Your task to perform on an android device: turn off javascript in the chrome app Image 0: 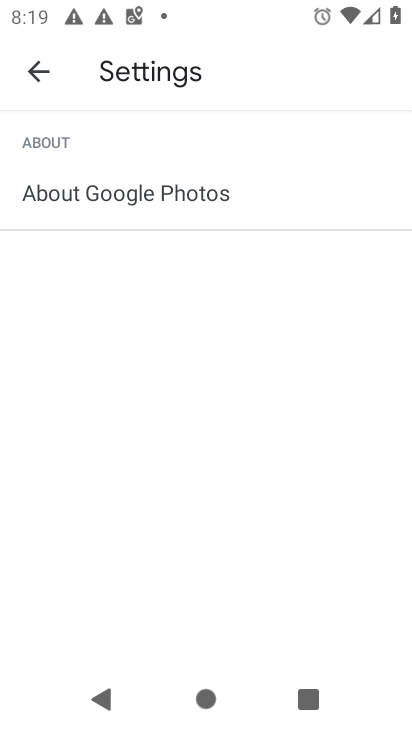
Step 0: press back button
Your task to perform on an android device: turn off javascript in the chrome app Image 1: 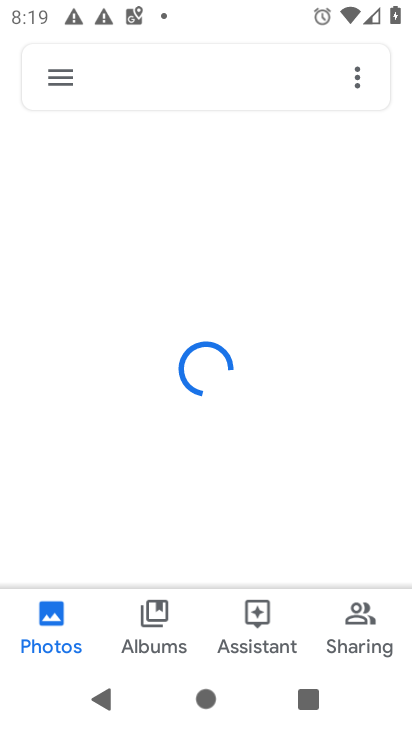
Step 1: press back button
Your task to perform on an android device: turn off javascript in the chrome app Image 2: 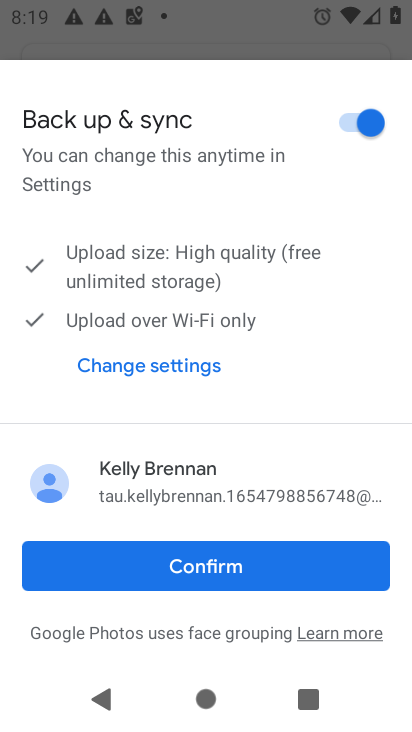
Step 2: press home button
Your task to perform on an android device: turn off javascript in the chrome app Image 3: 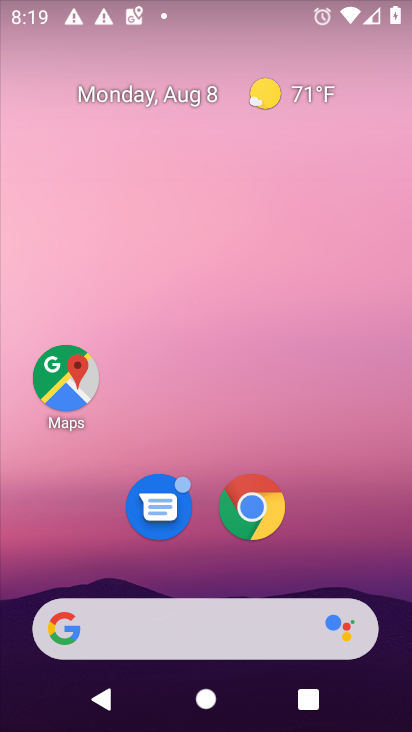
Step 3: drag from (189, 587) to (0, 29)
Your task to perform on an android device: turn off javascript in the chrome app Image 4: 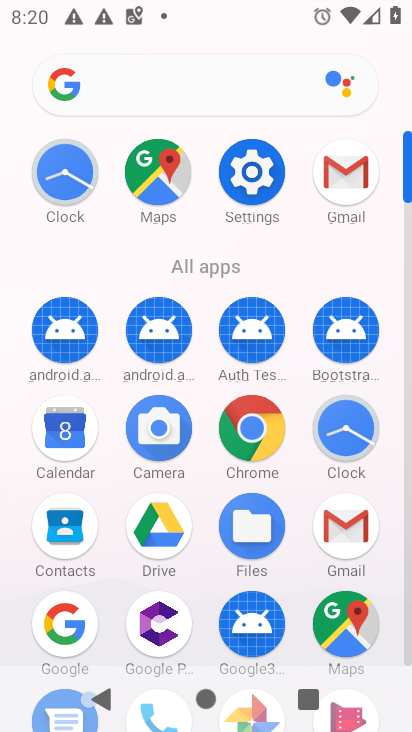
Step 4: click (257, 449)
Your task to perform on an android device: turn off javascript in the chrome app Image 5: 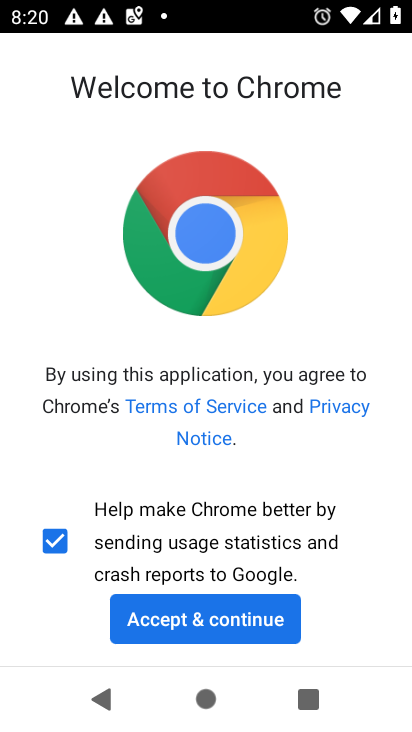
Step 5: click (270, 617)
Your task to perform on an android device: turn off javascript in the chrome app Image 6: 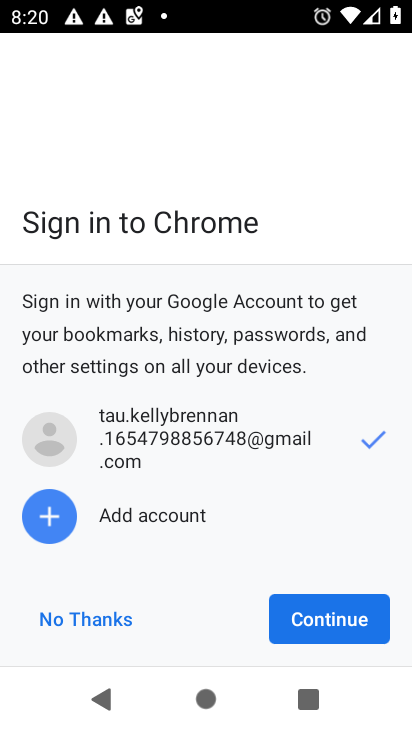
Step 6: click (305, 613)
Your task to perform on an android device: turn off javascript in the chrome app Image 7: 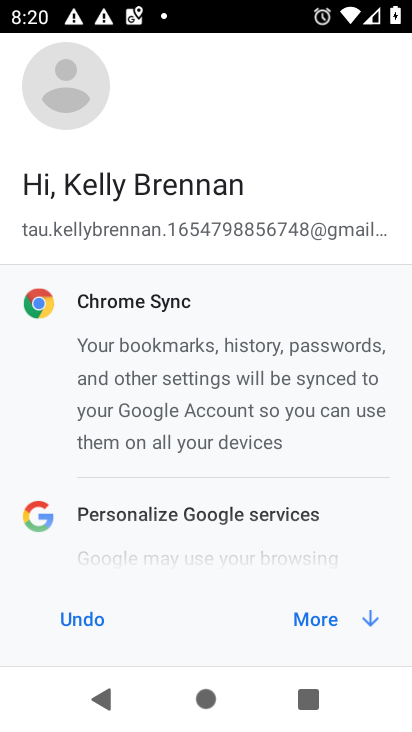
Step 7: click (354, 616)
Your task to perform on an android device: turn off javascript in the chrome app Image 8: 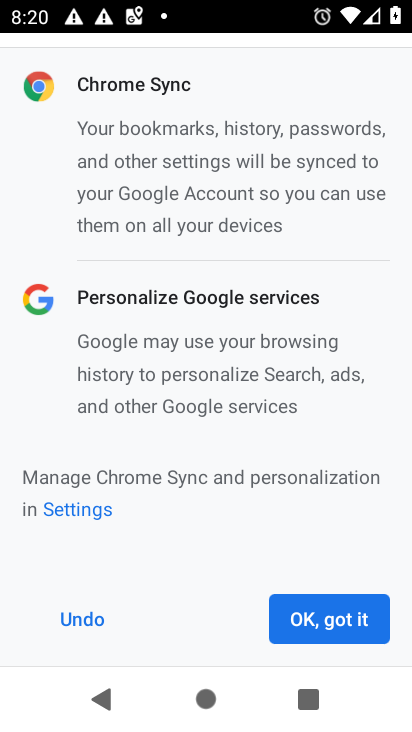
Step 8: click (354, 616)
Your task to perform on an android device: turn off javascript in the chrome app Image 9: 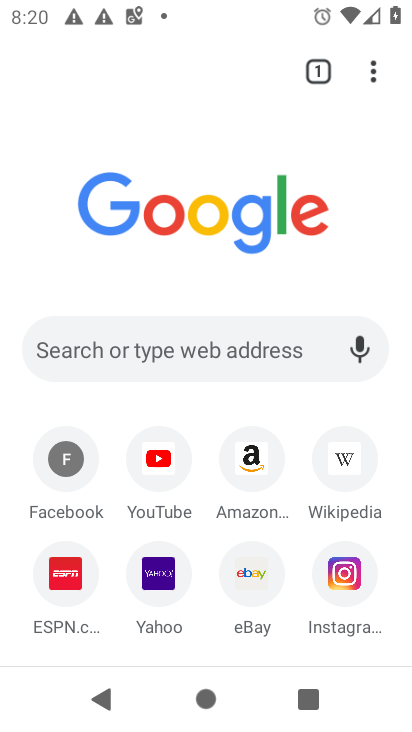
Step 9: click (366, 68)
Your task to perform on an android device: turn off javascript in the chrome app Image 10: 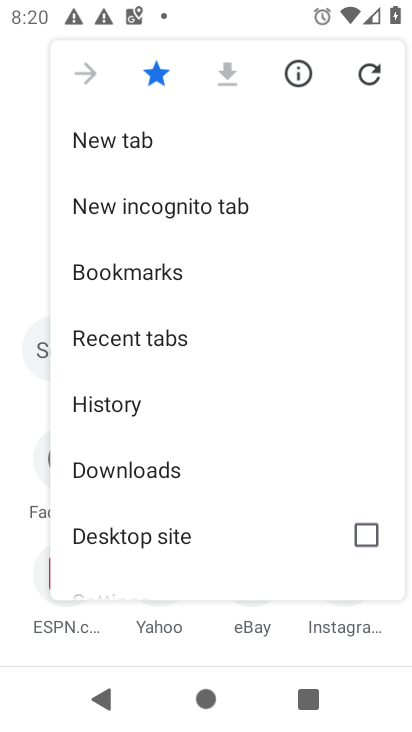
Step 10: drag from (189, 499) to (151, 127)
Your task to perform on an android device: turn off javascript in the chrome app Image 11: 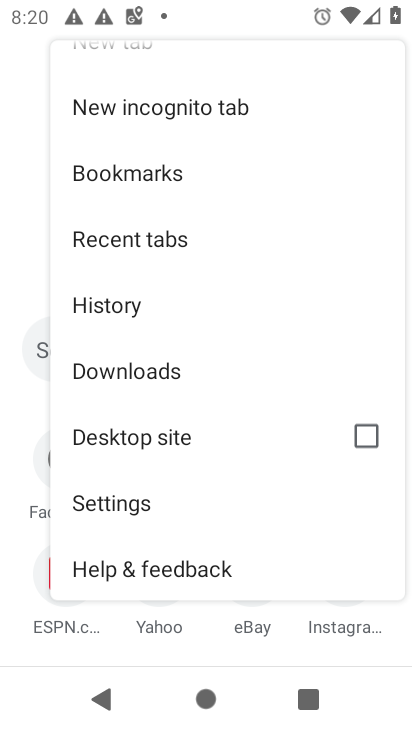
Step 11: click (82, 486)
Your task to perform on an android device: turn off javascript in the chrome app Image 12: 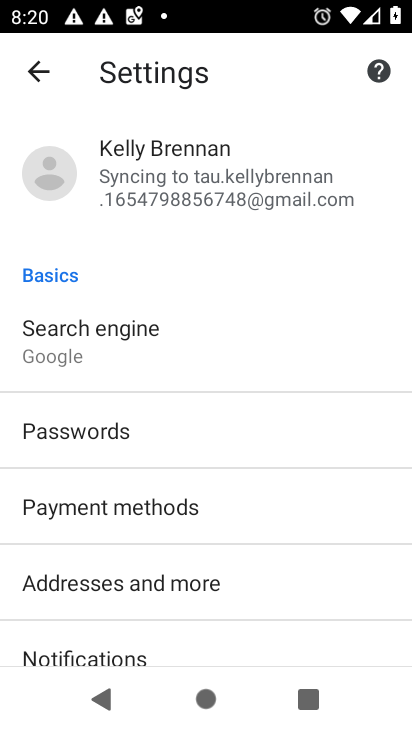
Step 12: drag from (82, 486) to (68, 94)
Your task to perform on an android device: turn off javascript in the chrome app Image 13: 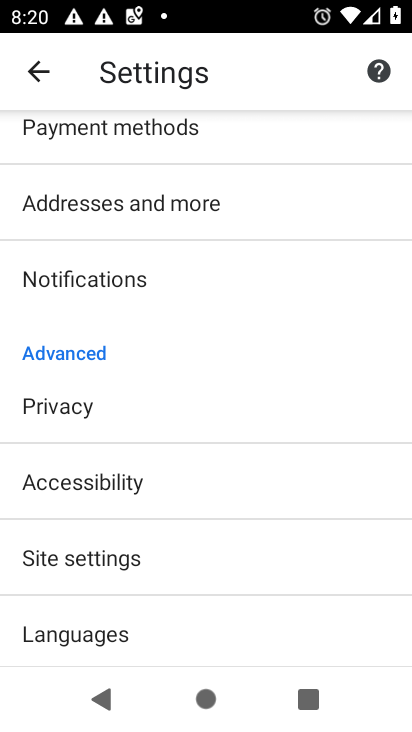
Step 13: click (157, 569)
Your task to perform on an android device: turn off javascript in the chrome app Image 14: 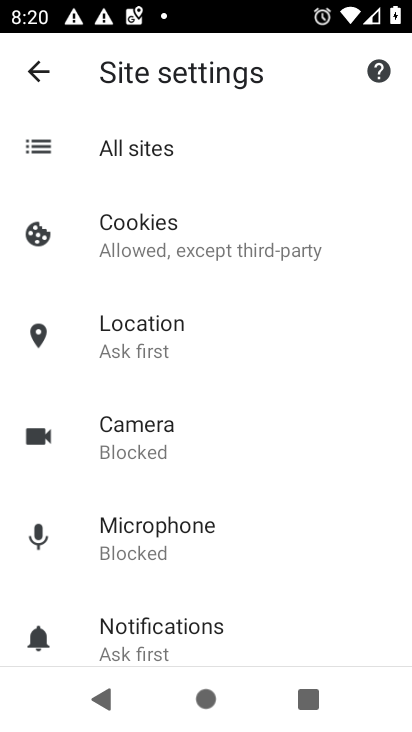
Step 14: drag from (157, 569) to (117, 120)
Your task to perform on an android device: turn off javascript in the chrome app Image 15: 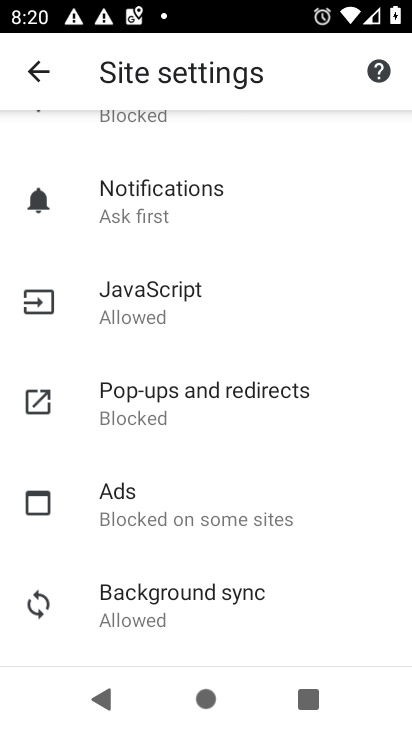
Step 15: click (131, 294)
Your task to perform on an android device: turn off javascript in the chrome app Image 16: 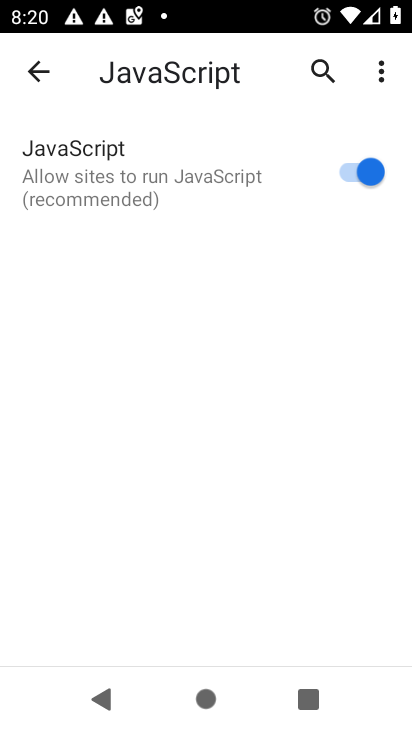
Step 16: click (345, 166)
Your task to perform on an android device: turn off javascript in the chrome app Image 17: 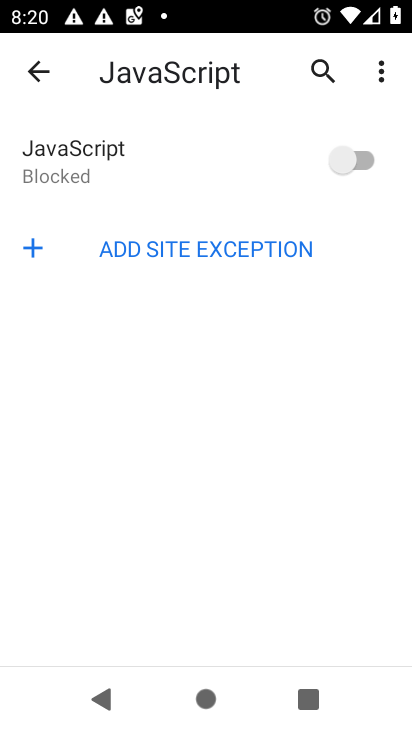
Step 17: task complete